Your task to perform on an android device: Go to location settings Image 0: 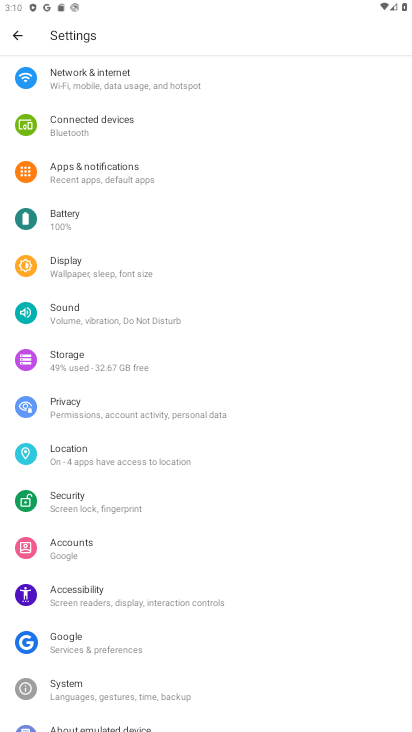
Step 0: click (61, 446)
Your task to perform on an android device: Go to location settings Image 1: 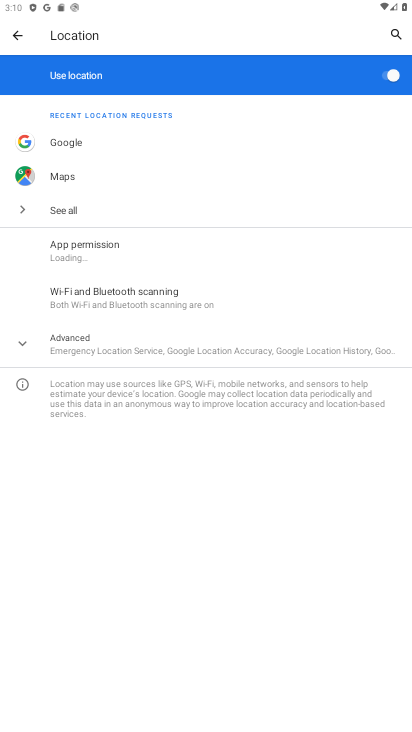
Step 1: task complete